Your task to perform on an android device: turn on bluetooth scan Image 0: 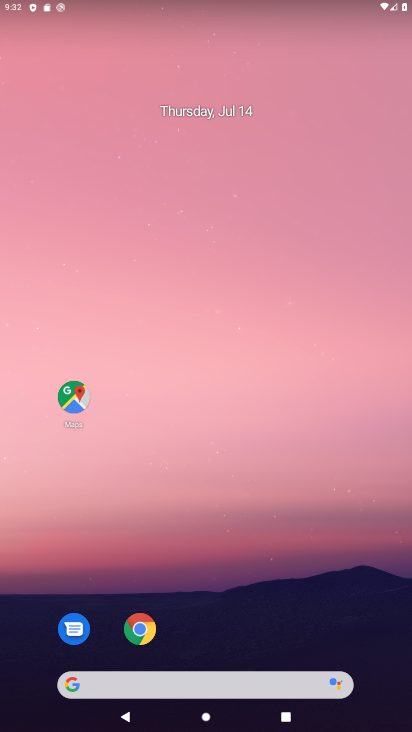
Step 0: drag from (253, 641) to (268, 81)
Your task to perform on an android device: turn on bluetooth scan Image 1: 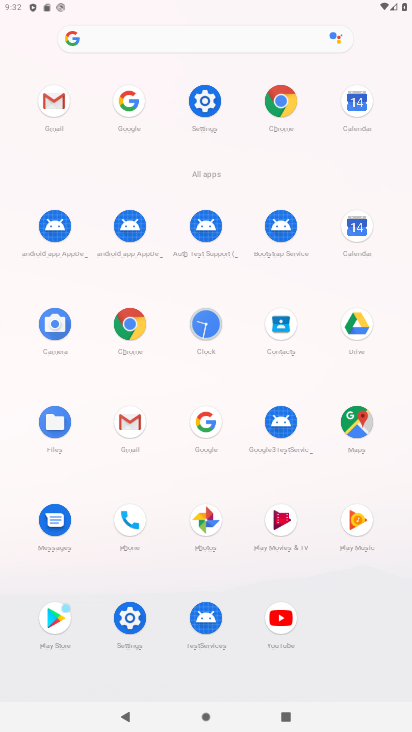
Step 1: click (210, 100)
Your task to perform on an android device: turn on bluetooth scan Image 2: 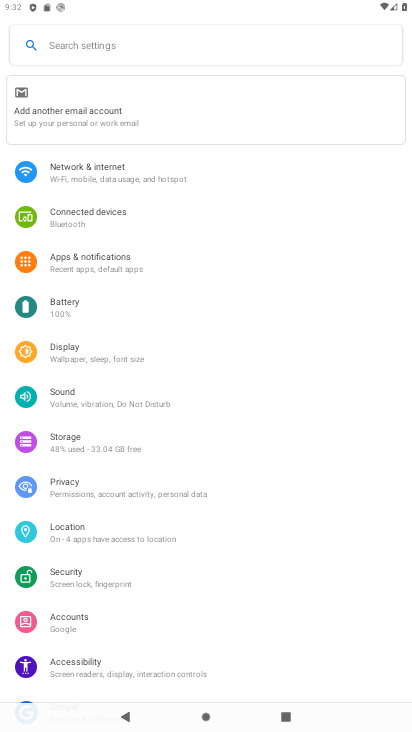
Step 2: click (114, 528)
Your task to perform on an android device: turn on bluetooth scan Image 3: 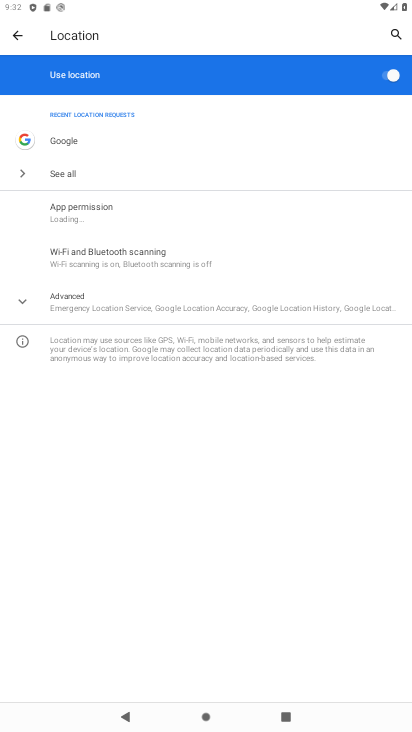
Step 3: click (101, 272)
Your task to perform on an android device: turn on bluetooth scan Image 4: 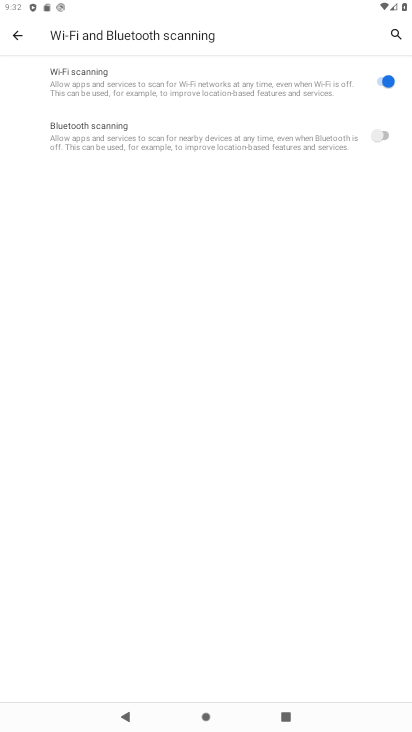
Step 4: click (377, 136)
Your task to perform on an android device: turn on bluetooth scan Image 5: 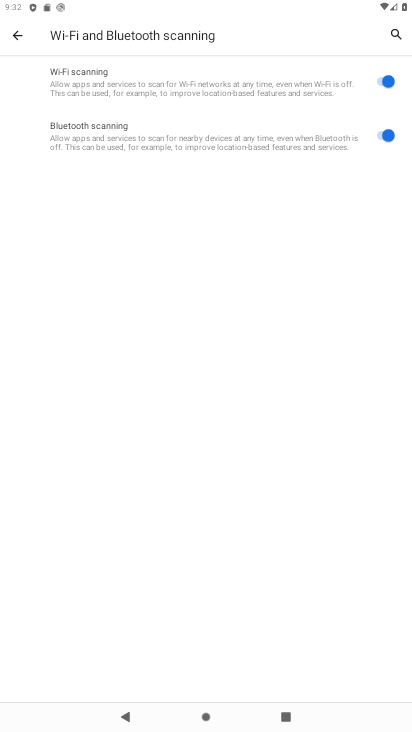
Step 5: task complete